Your task to perform on an android device: open app "ColorNote Notepad Notes" (install if not already installed) and enter user name: "unbridled@gmail.com" and password: "regularly" Image 0: 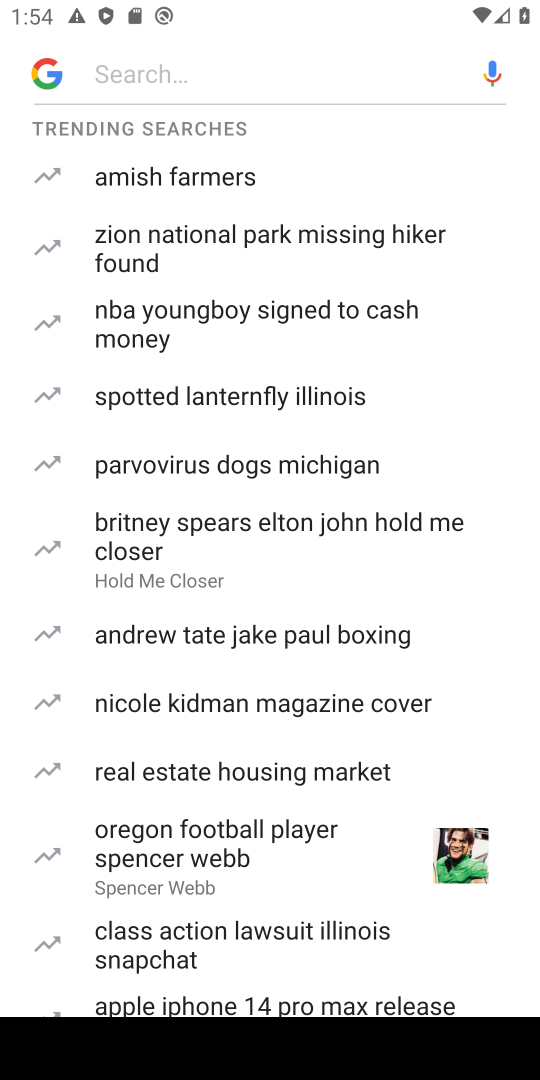
Step 0: press back button
Your task to perform on an android device: open app "ColorNote Notepad Notes" (install if not already installed) and enter user name: "unbridled@gmail.com" and password: "regularly" Image 1: 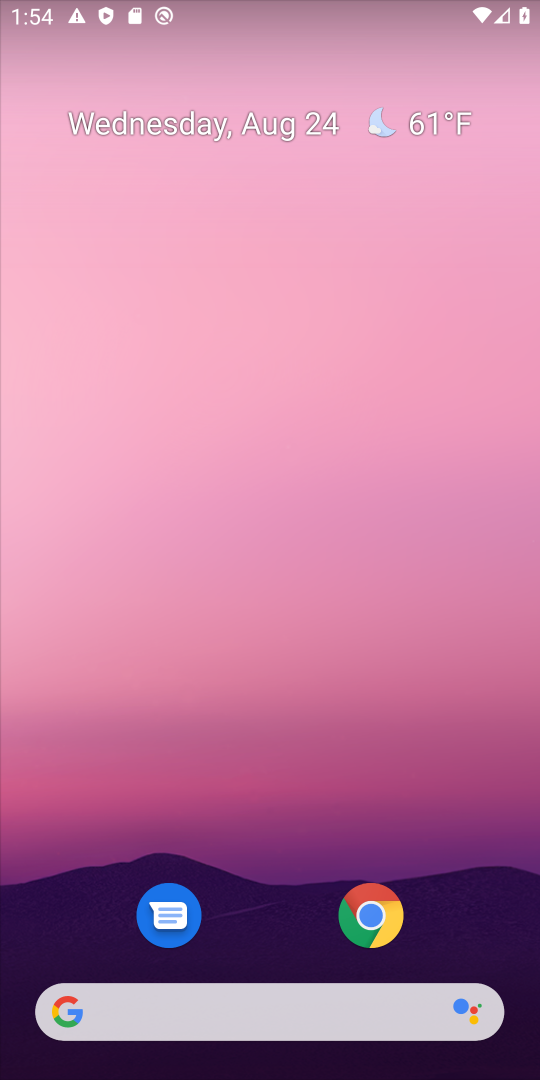
Step 1: drag from (240, 784) to (271, 256)
Your task to perform on an android device: open app "ColorNote Notepad Notes" (install if not already installed) and enter user name: "unbridled@gmail.com" and password: "regularly" Image 2: 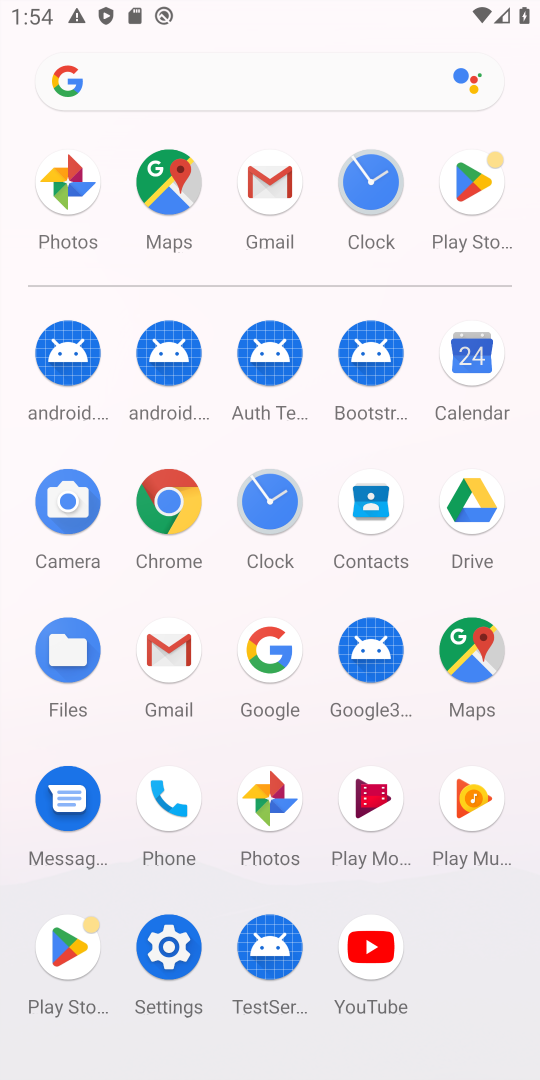
Step 2: click (489, 203)
Your task to perform on an android device: open app "ColorNote Notepad Notes" (install if not already installed) and enter user name: "unbridled@gmail.com" and password: "regularly" Image 3: 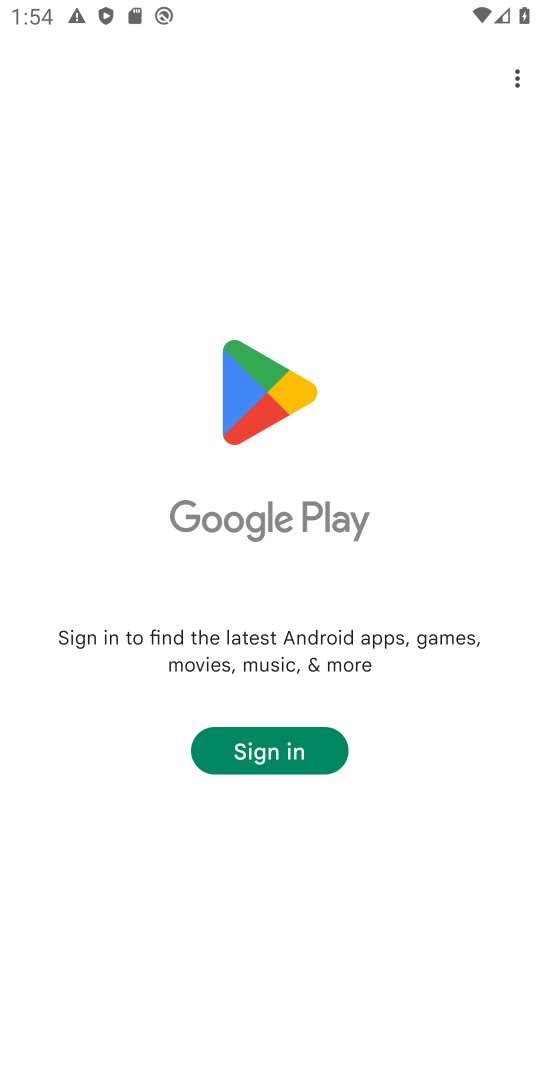
Step 3: task complete